Your task to perform on an android device: Search for seafood restaurants on Google Maps Image 0: 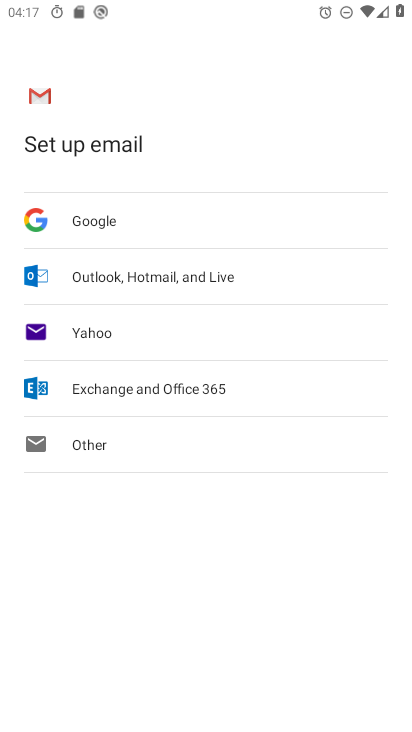
Step 0: press home button
Your task to perform on an android device: Search for seafood restaurants on Google Maps Image 1: 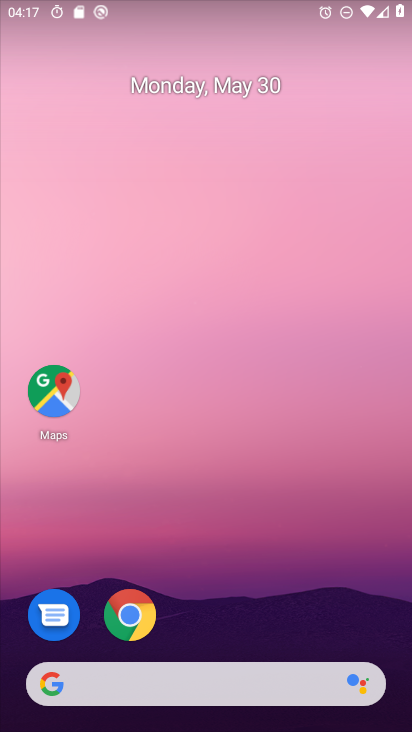
Step 1: click (53, 391)
Your task to perform on an android device: Search for seafood restaurants on Google Maps Image 2: 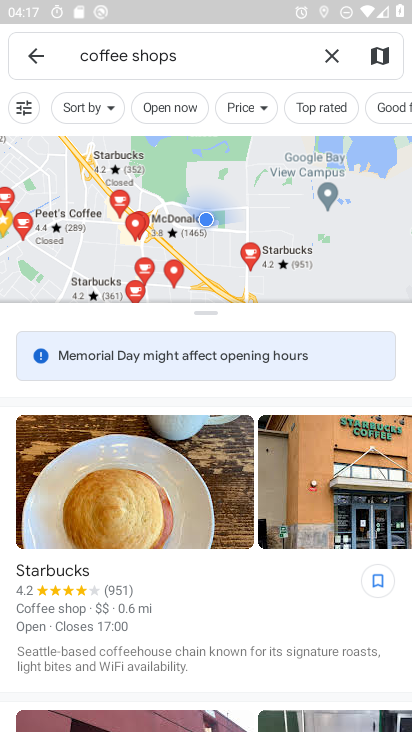
Step 2: click (334, 54)
Your task to perform on an android device: Search for seafood restaurants on Google Maps Image 3: 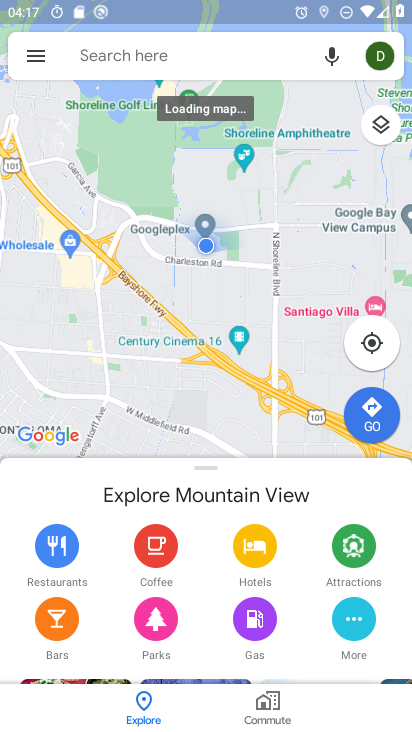
Step 3: click (188, 56)
Your task to perform on an android device: Search for seafood restaurants on Google Maps Image 4: 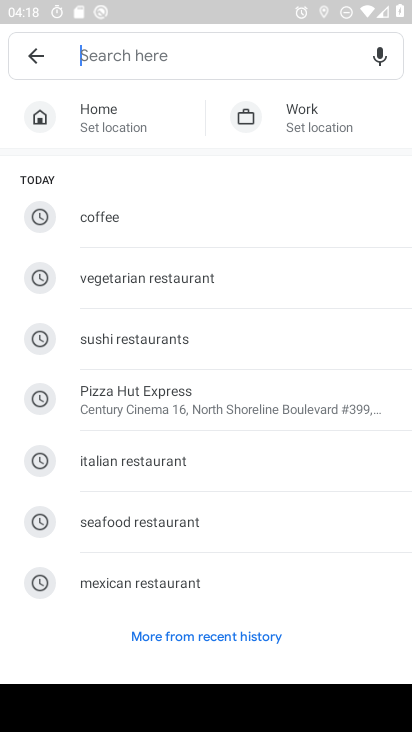
Step 4: type "seafood restaurants"
Your task to perform on an android device: Search for seafood restaurants on Google Maps Image 5: 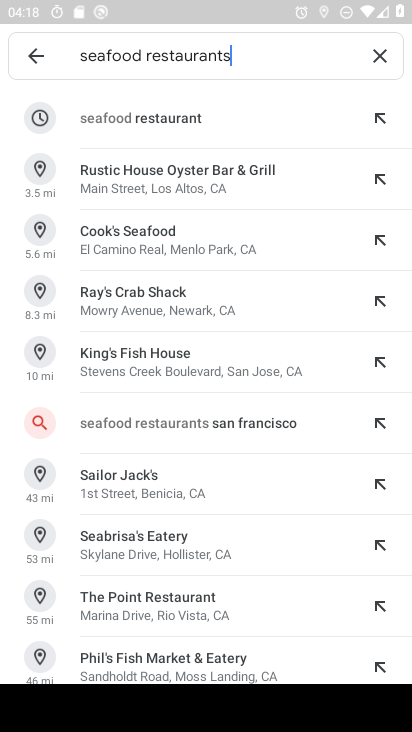
Step 5: click (186, 113)
Your task to perform on an android device: Search for seafood restaurants on Google Maps Image 6: 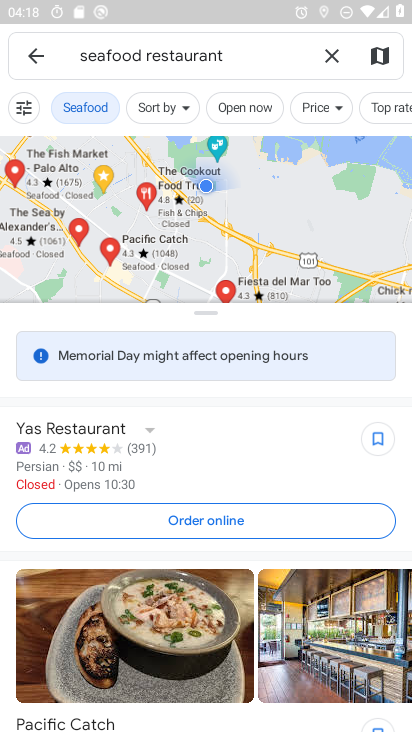
Step 6: task complete